Your task to perform on an android device: Go to ESPN.com Image 0: 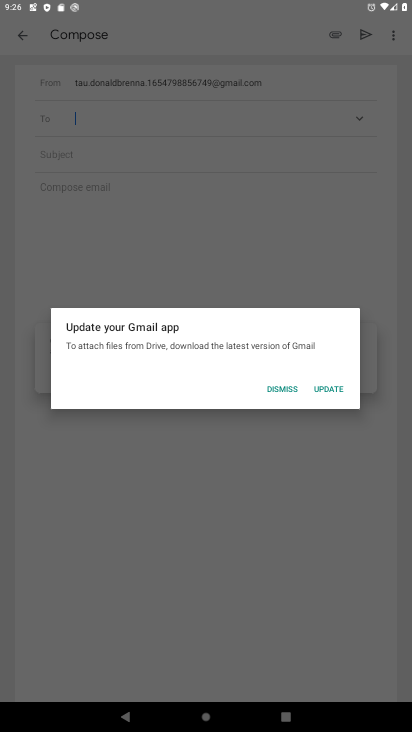
Step 0: click (270, 378)
Your task to perform on an android device: Go to ESPN.com Image 1: 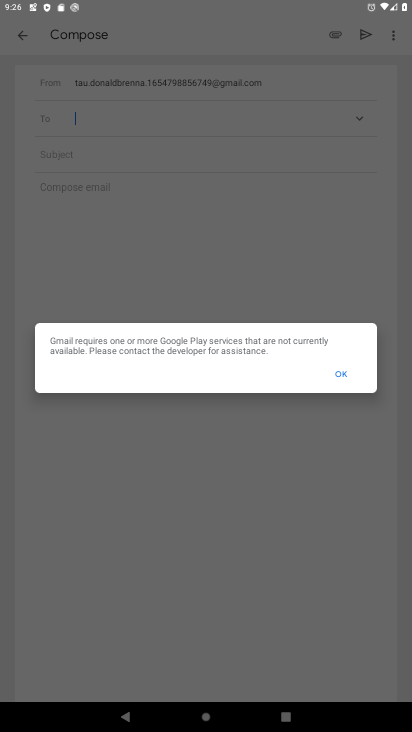
Step 1: press home button
Your task to perform on an android device: Go to ESPN.com Image 2: 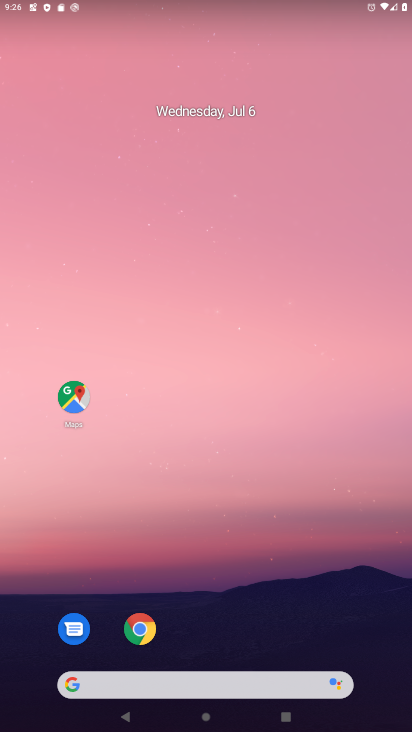
Step 2: click (149, 628)
Your task to perform on an android device: Go to ESPN.com Image 3: 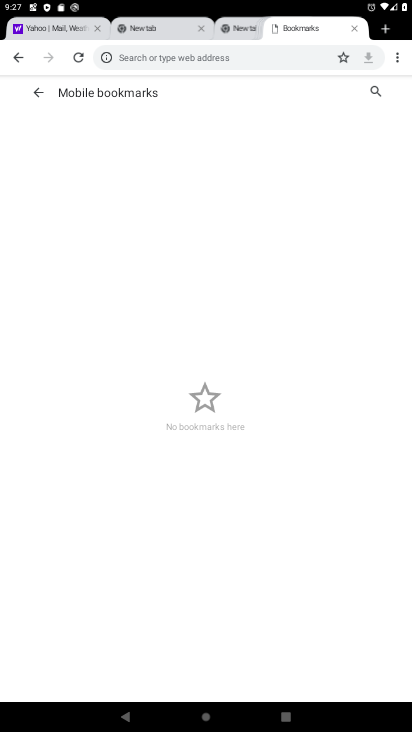
Step 3: click (13, 54)
Your task to perform on an android device: Go to ESPN.com Image 4: 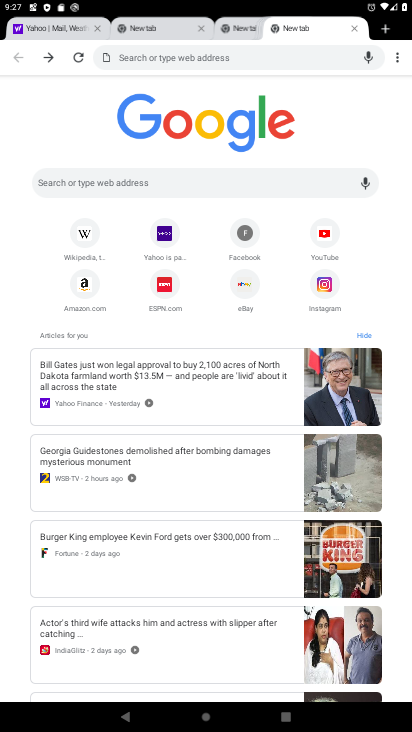
Step 4: click (79, 164)
Your task to perform on an android device: Go to ESPN.com Image 5: 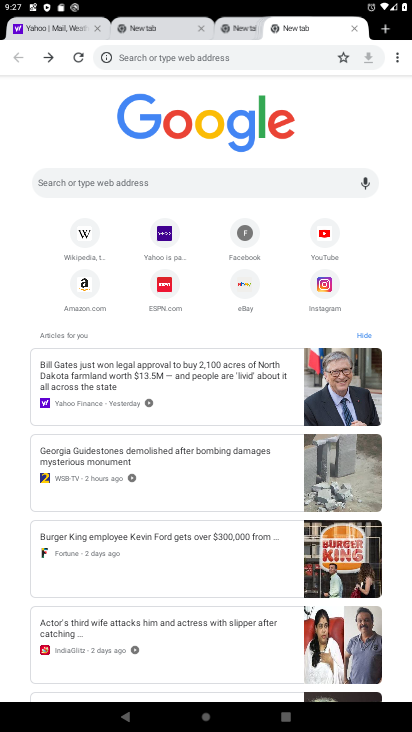
Step 5: click (88, 189)
Your task to perform on an android device: Go to ESPN.com Image 6: 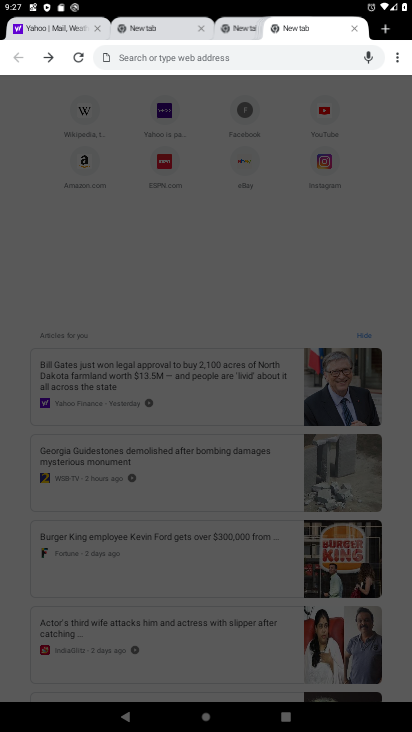
Step 6: type "ESPN.com"
Your task to perform on an android device: Go to ESPN.com Image 7: 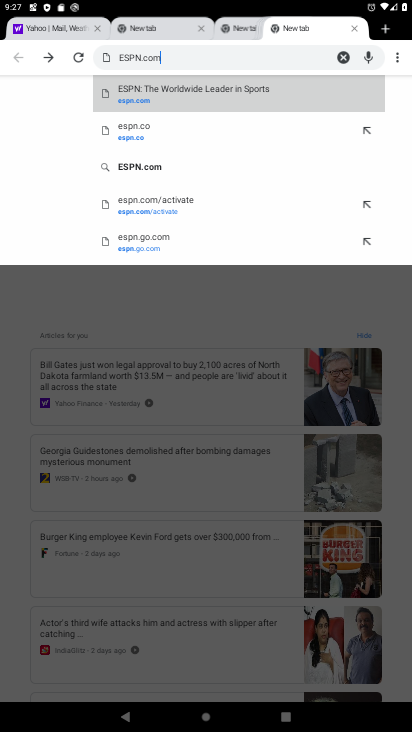
Step 7: type ""
Your task to perform on an android device: Go to ESPN.com Image 8: 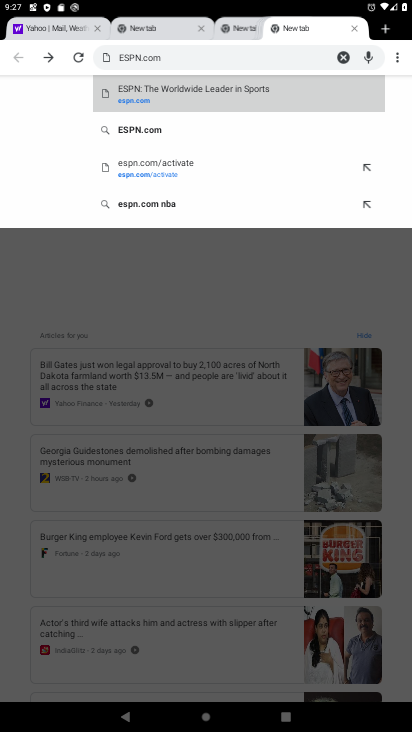
Step 8: click (203, 92)
Your task to perform on an android device: Go to ESPN.com Image 9: 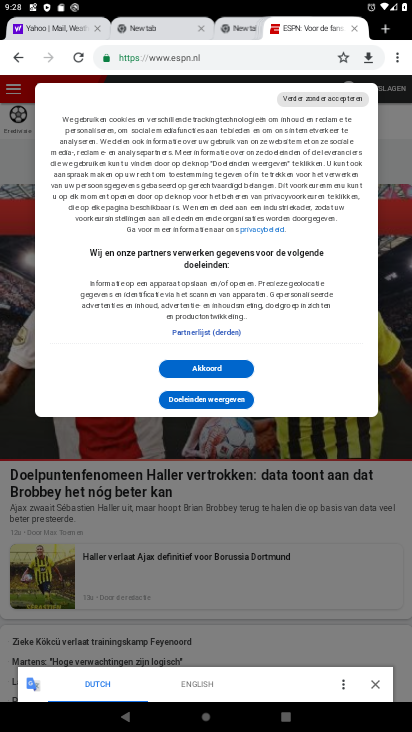
Step 9: task complete